Your task to perform on an android device: add a contact in the contacts app Image 0: 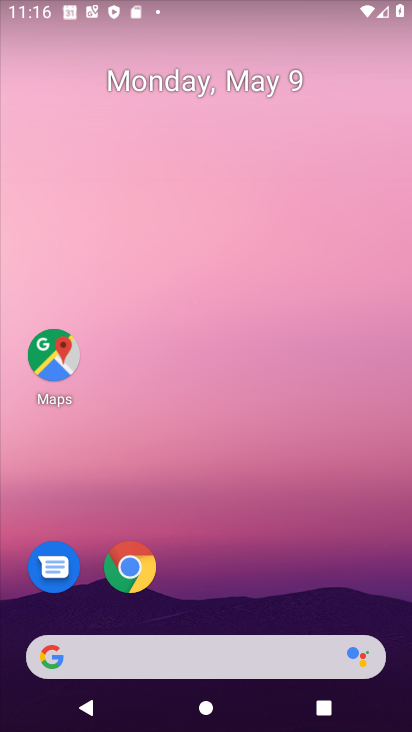
Step 0: drag from (229, 647) to (159, 117)
Your task to perform on an android device: add a contact in the contacts app Image 1: 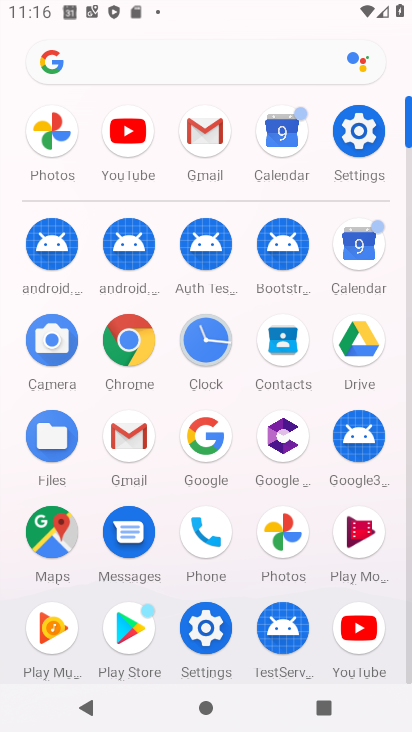
Step 1: click (270, 344)
Your task to perform on an android device: add a contact in the contacts app Image 2: 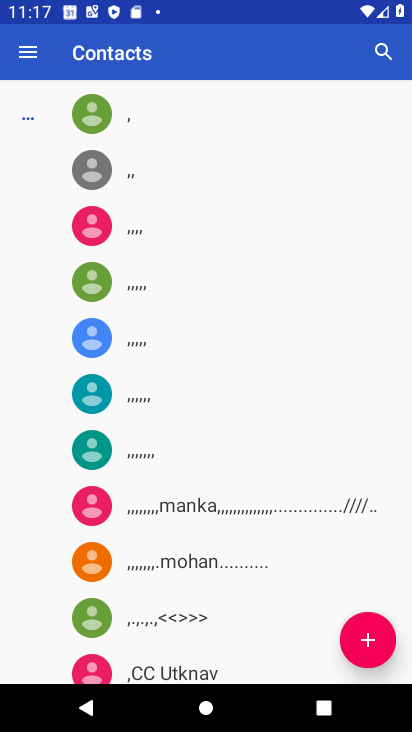
Step 2: click (369, 655)
Your task to perform on an android device: add a contact in the contacts app Image 3: 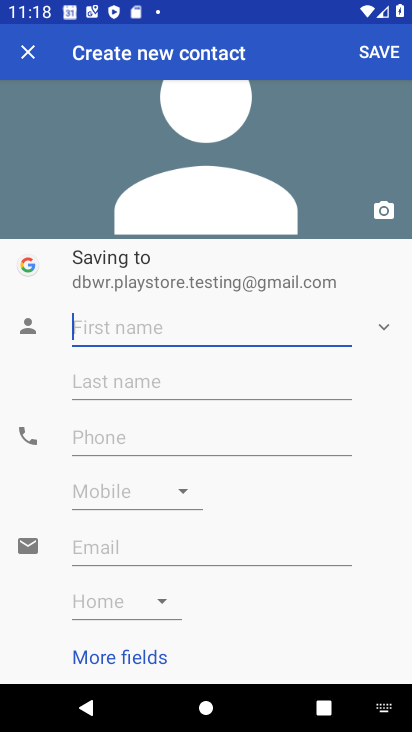
Step 3: type "chg"
Your task to perform on an android device: add a contact in the contacts app Image 4: 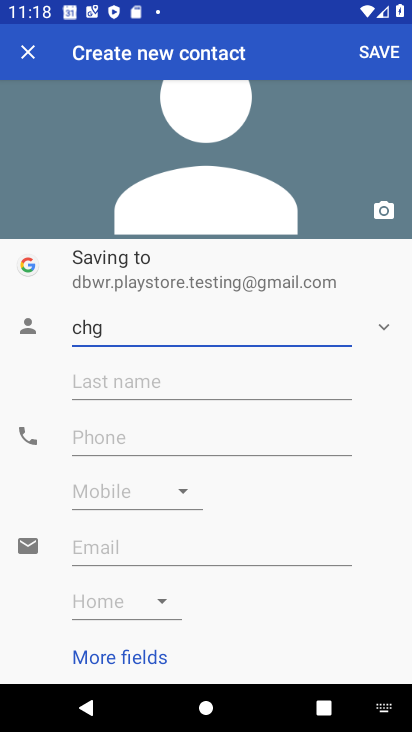
Step 4: click (214, 430)
Your task to perform on an android device: add a contact in the contacts app Image 5: 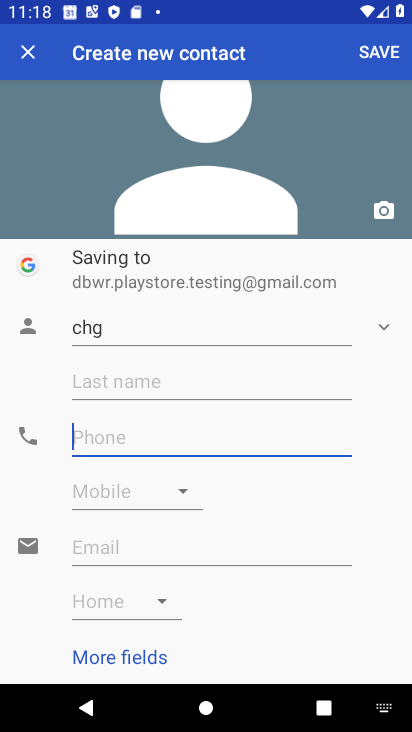
Step 5: type "5767"
Your task to perform on an android device: add a contact in the contacts app Image 6: 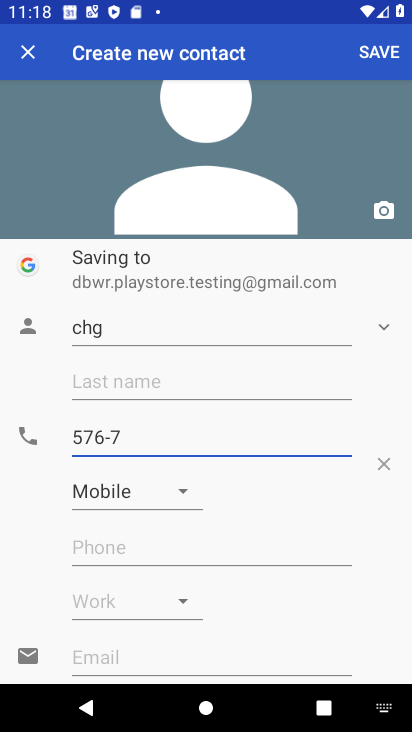
Step 6: click (358, 52)
Your task to perform on an android device: add a contact in the contacts app Image 7: 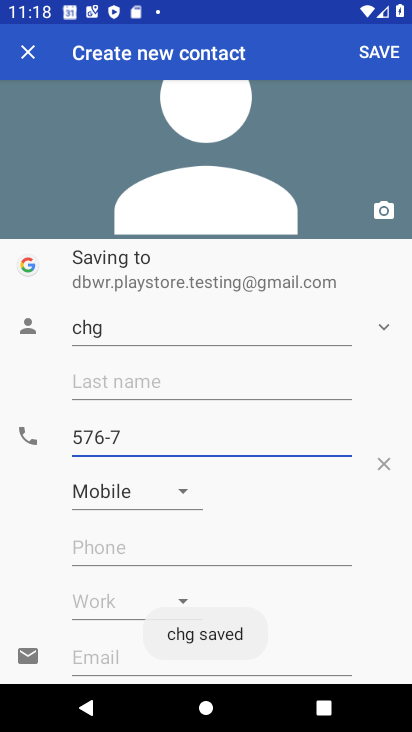
Step 7: task complete